Your task to perform on an android device: change alarm snooze length Image 0: 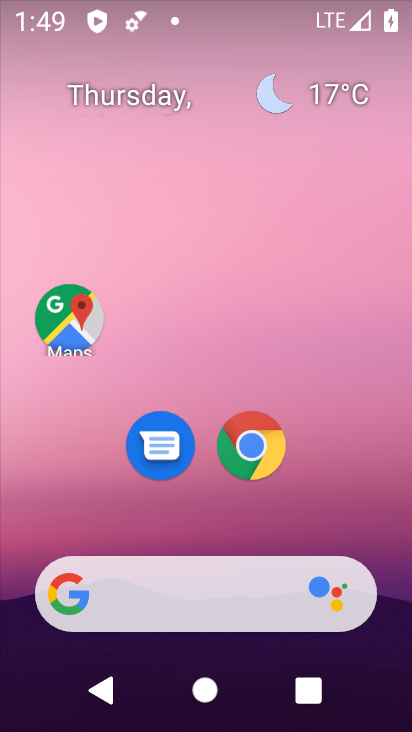
Step 0: drag from (343, 427) to (215, 1)
Your task to perform on an android device: change alarm snooze length Image 1: 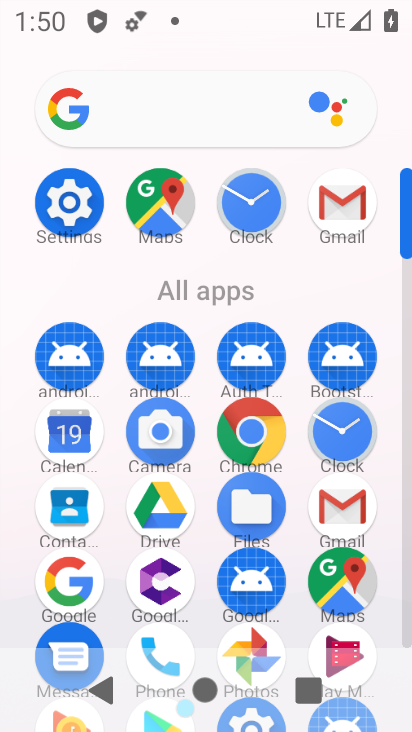
Step 1: click (251, 198)
Your task to perform on an android device: change alarm snooze length Image 2: 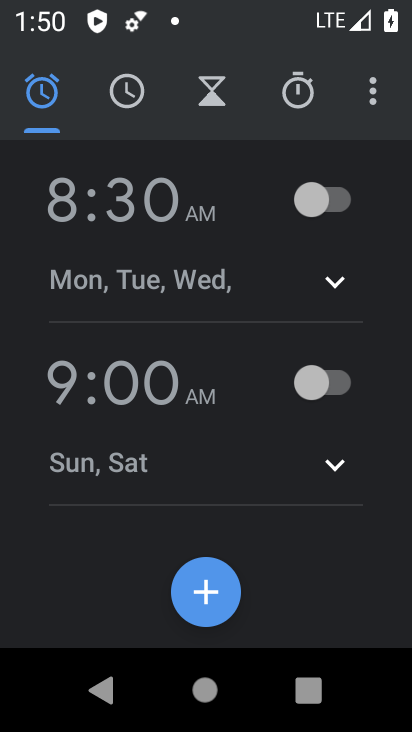
Step 2: click (367, 85)
Your task to perform on an android device: change alarm snooze length Image 3: 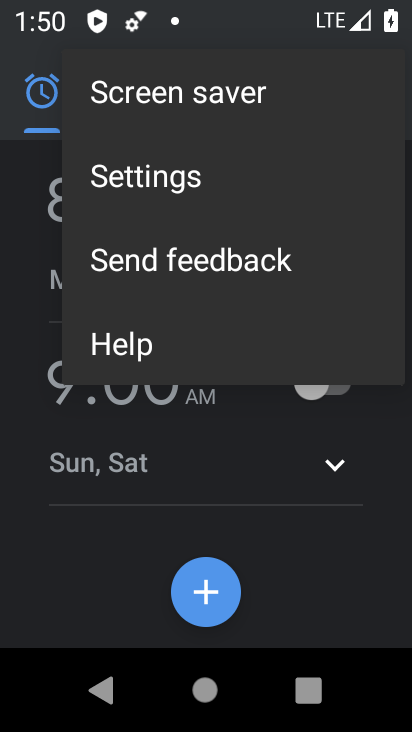
Step 3: click (174, 183)
Your task to perform on an android device: change alarm snooze length Image 4: 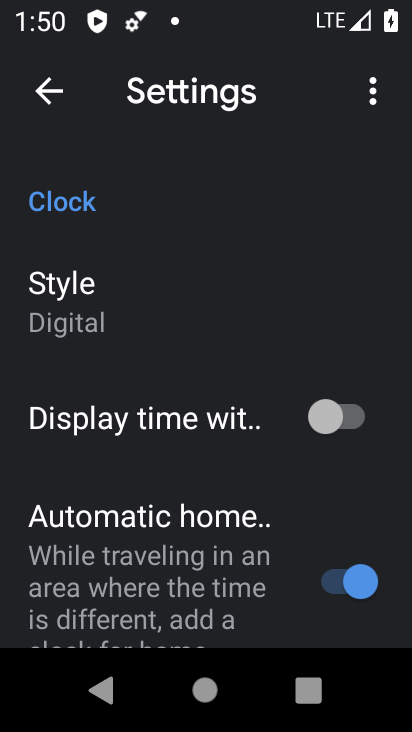
Step 4: drag from (230, 430) to (230, 170)
Your task to perform on an android device: change alarm snooze length Image 5: 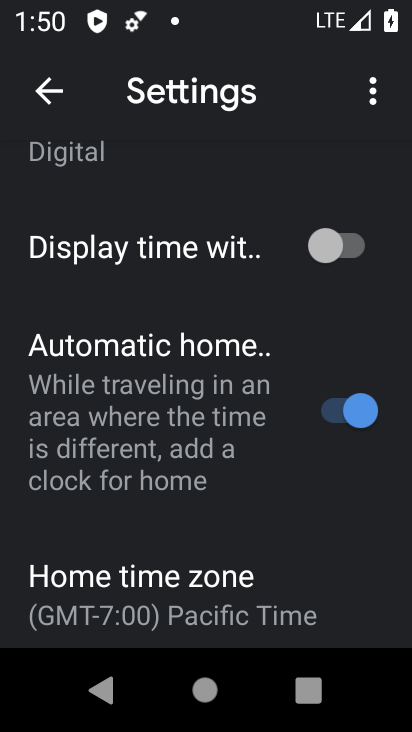
Step 5: drag from (239, 469) to (236, 202)
Your task to perform on an android device: change alarm snooze length Image 6: 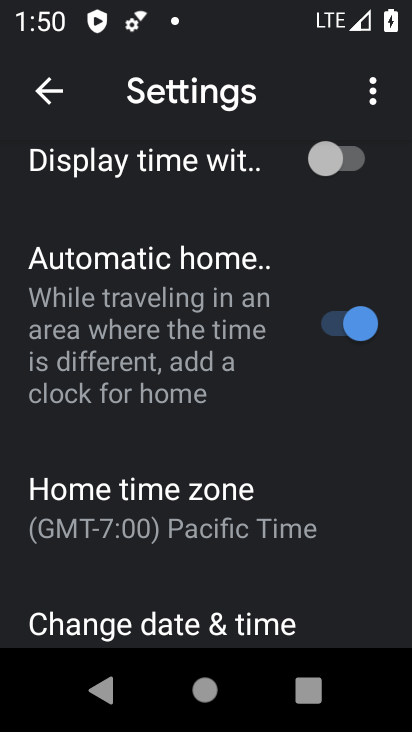
Step 6: drag from (214, 560) to (222, 207)
Your task to perform on an android device: change alarm snooze length Image 7: 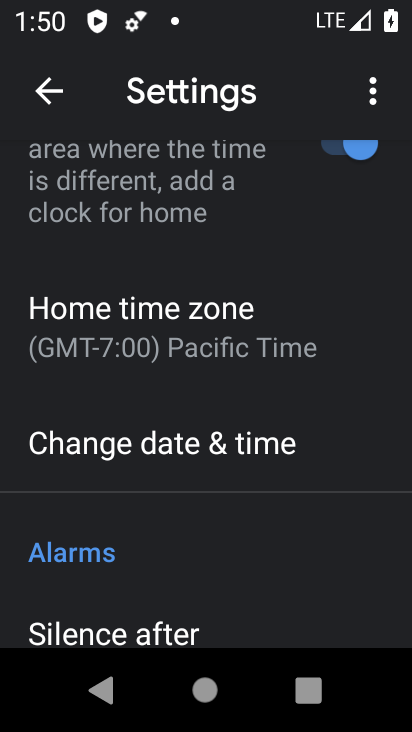
Step 7: drag from (264, 516) to (249, 329)
Your task to perform on an android device: change alarm snooze length Image 8: 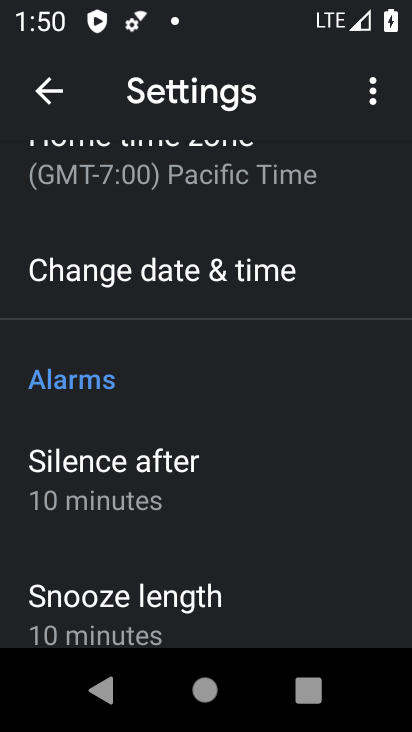
Step 8: drag from (254, 467) to (194, 128)
Your task to perform on an android device: change alarm snooze length Image 9: 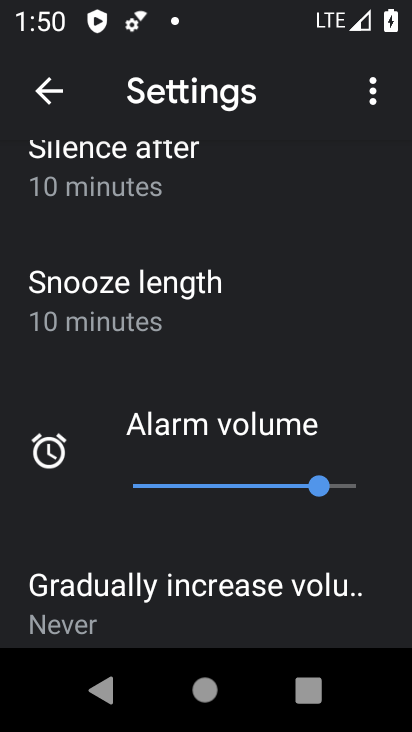
Step 9: click (114, 279)
Your task to perform on an android device: change alarm snooze length Image 10: 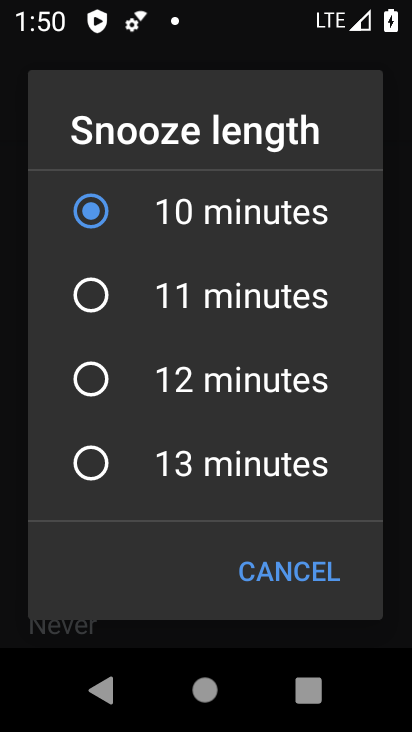
Step 10: click (86, 312)
Your task to perform on an android device: change alarm snooze length Image 11: 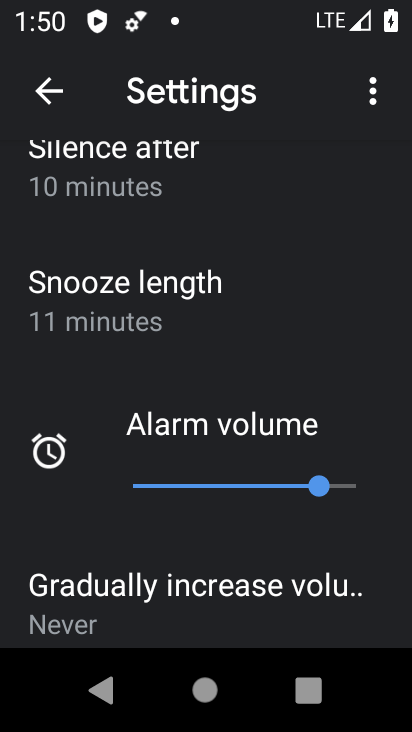
Step 11: task complete